Your task to perform on an android device: Add "macbook air" to the cart on newegg.com, then select checkout. Image 0: 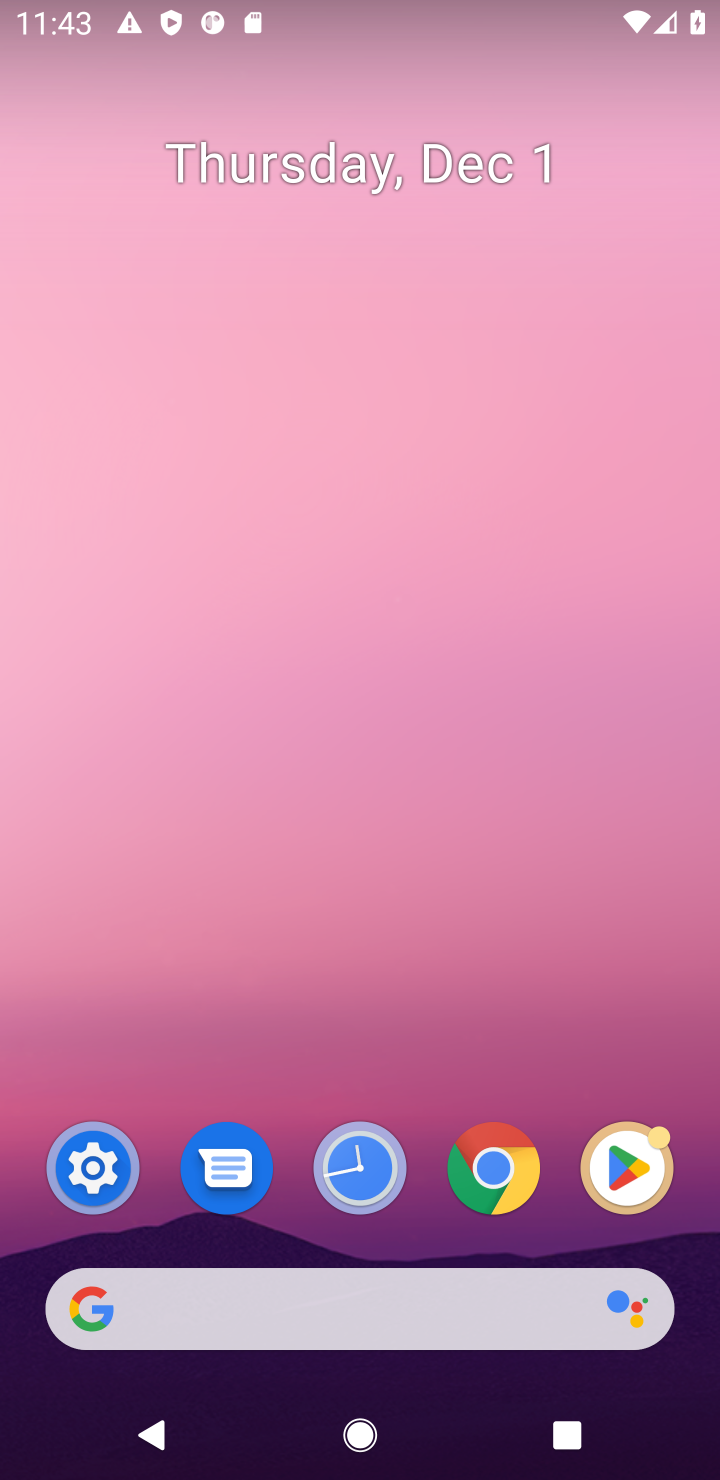
Step 0: click (489, 1174)
Your task to perform on an android device: Add "macbook air" to the cart on newegg.com, then select checkout. Image 1: 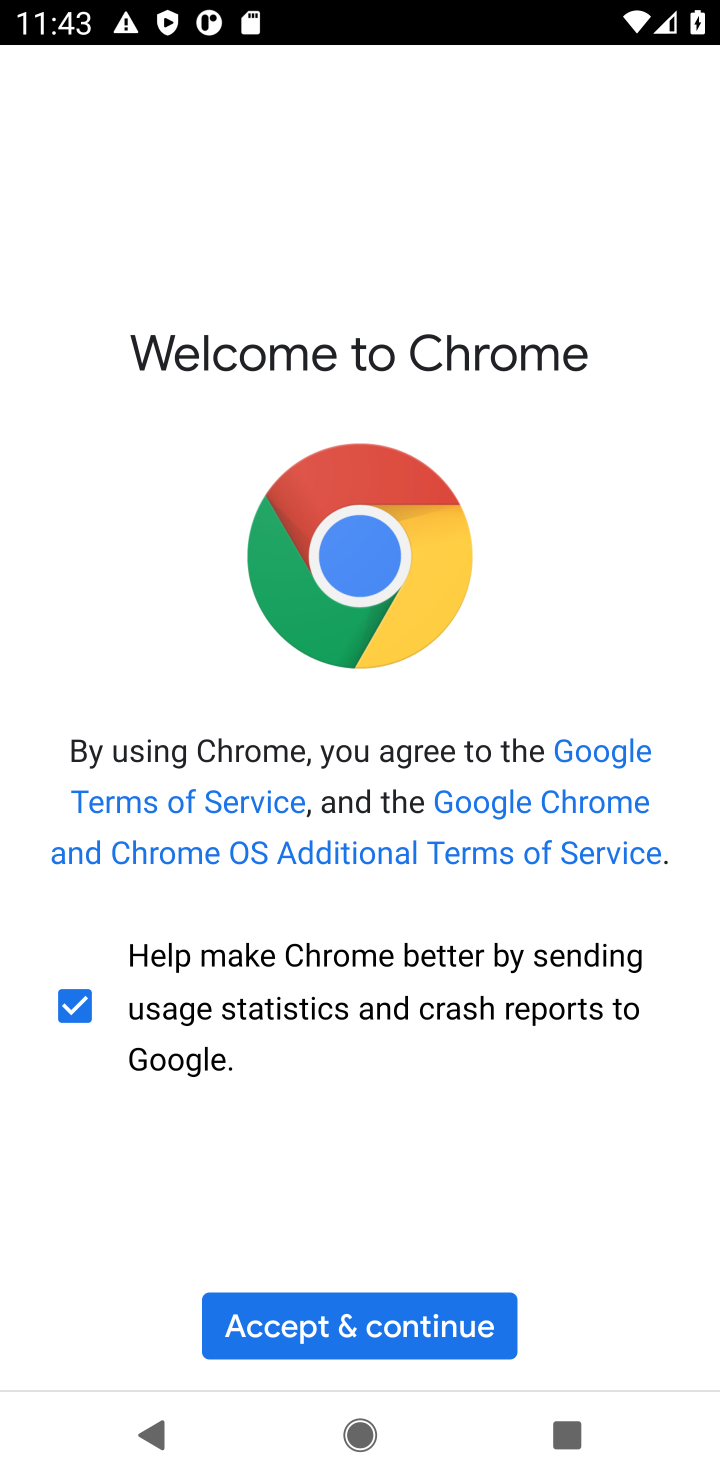
Step 1: click (345, 1315)
Your task to perform on an android device: Add "macbook air" to the cart on newegg.com, then select checkout. Image 2: 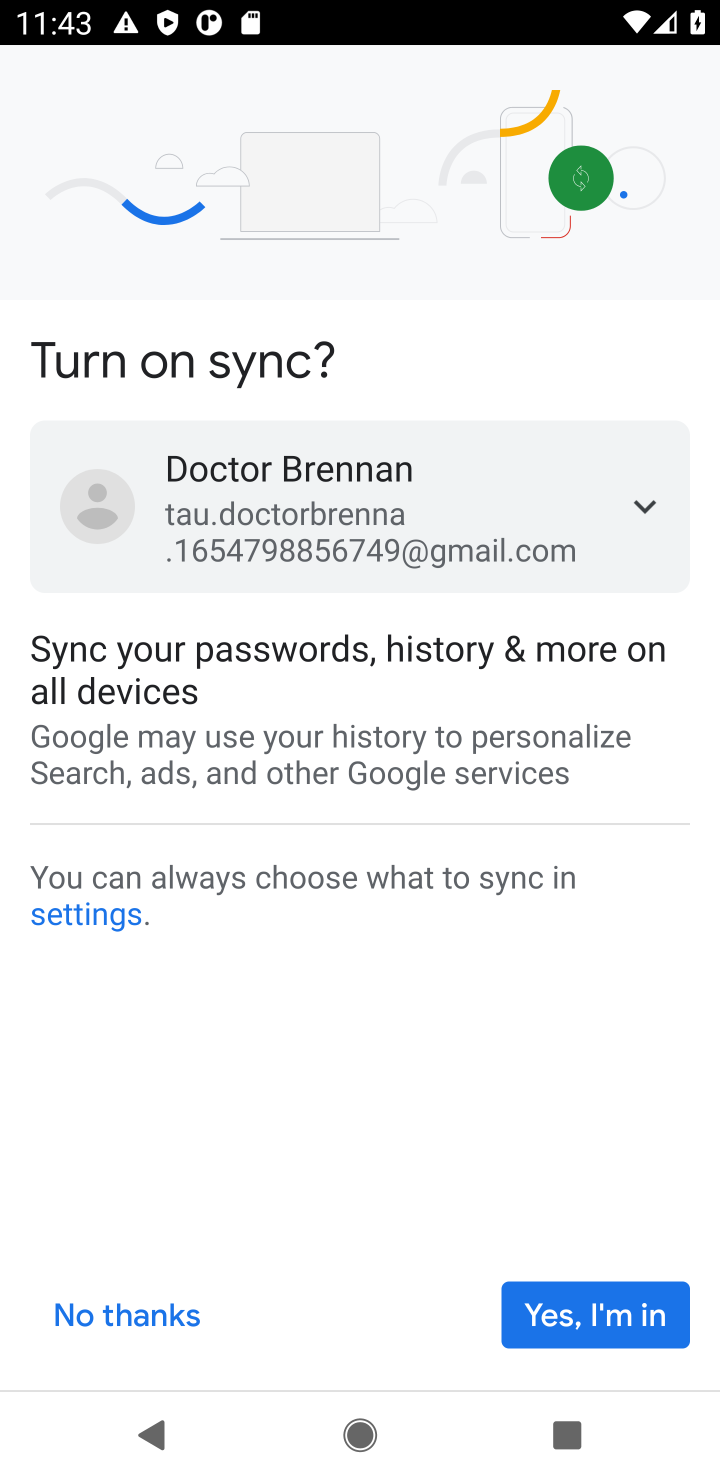
Step 2: click (598, 1324)
Your task to perform on an android device: Add "macbook air" to the cart on newegg.com, then select checkout. Image 3: 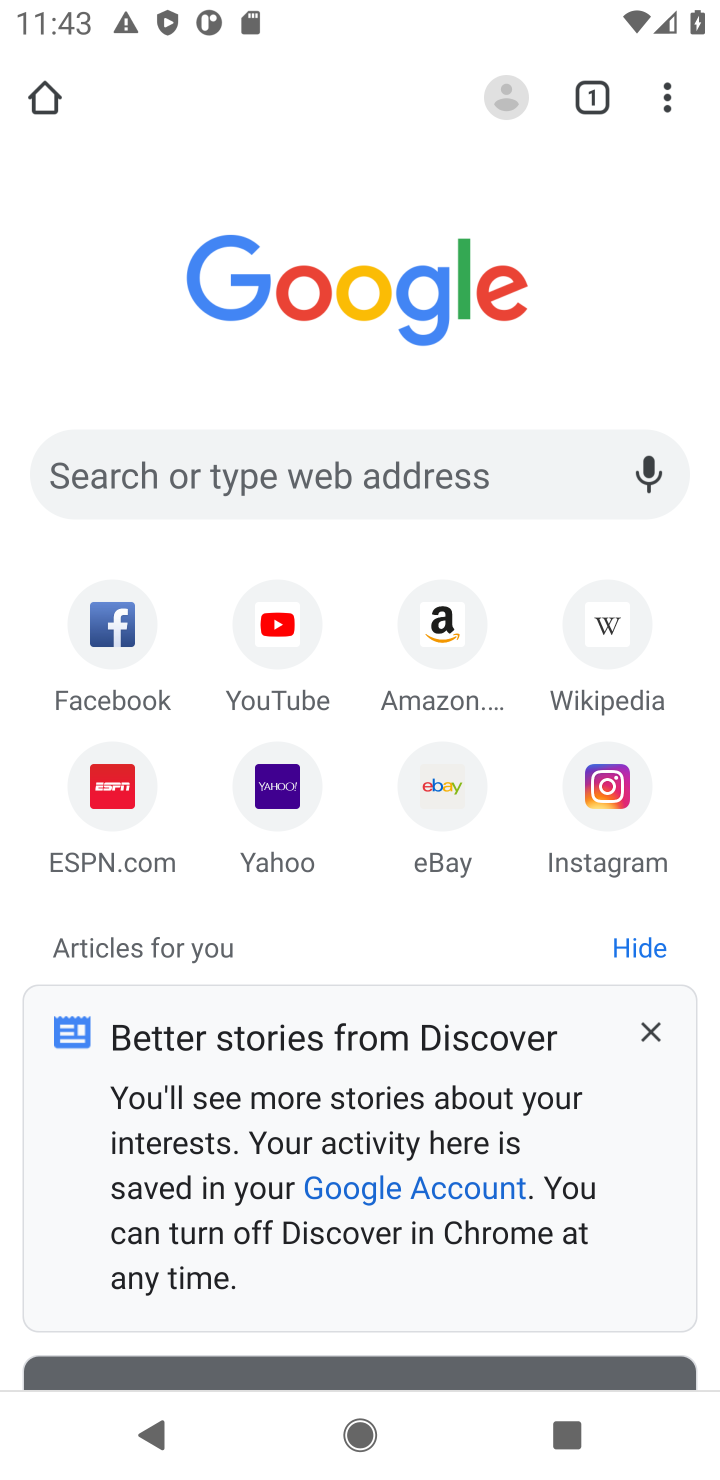
Step 3: click (310, 466)
Your task to perform on an android device: Add "macbook air" to the cart on newegg.com, then select checkout. Image 4: 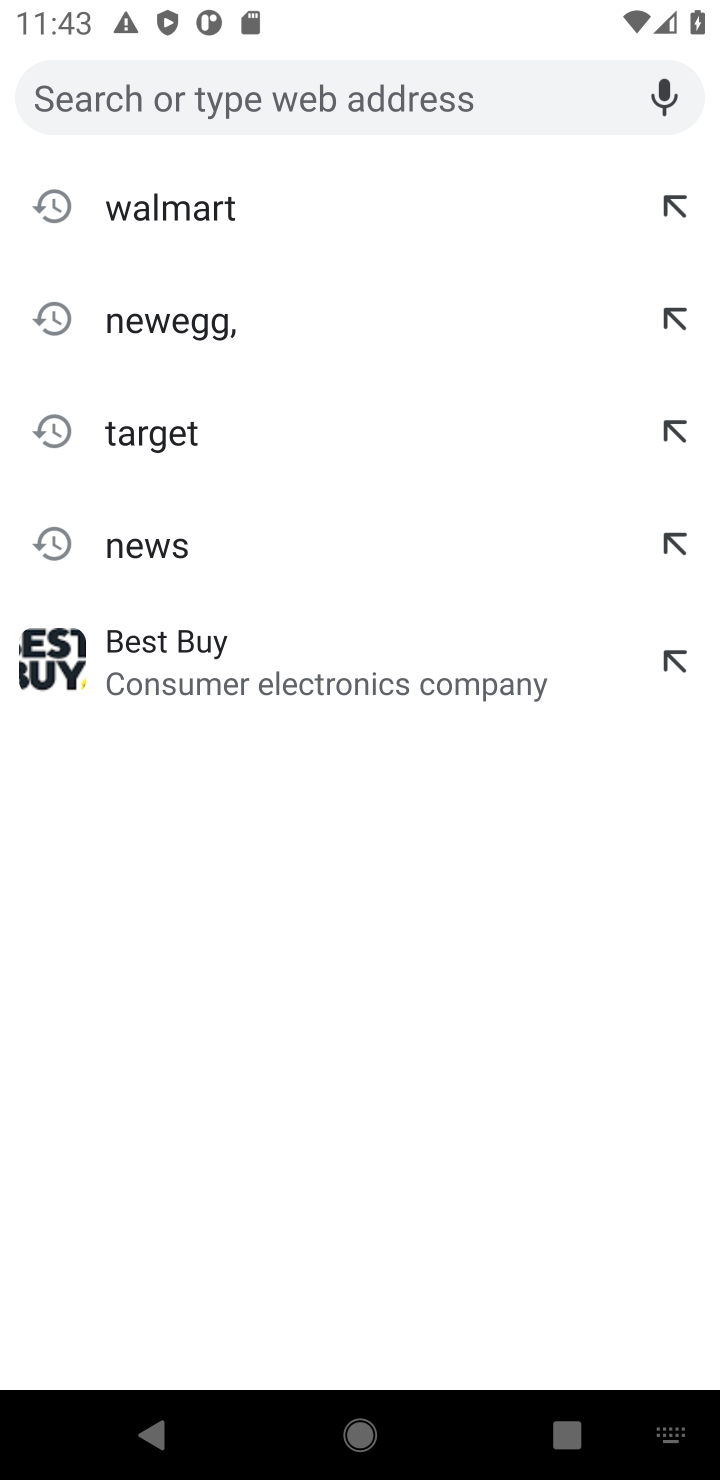
Step 4: type "newegg.com"
Your task to perform on an android device: Add "macbook air" to the cart on newegg.com, then select checkout. Image 5: 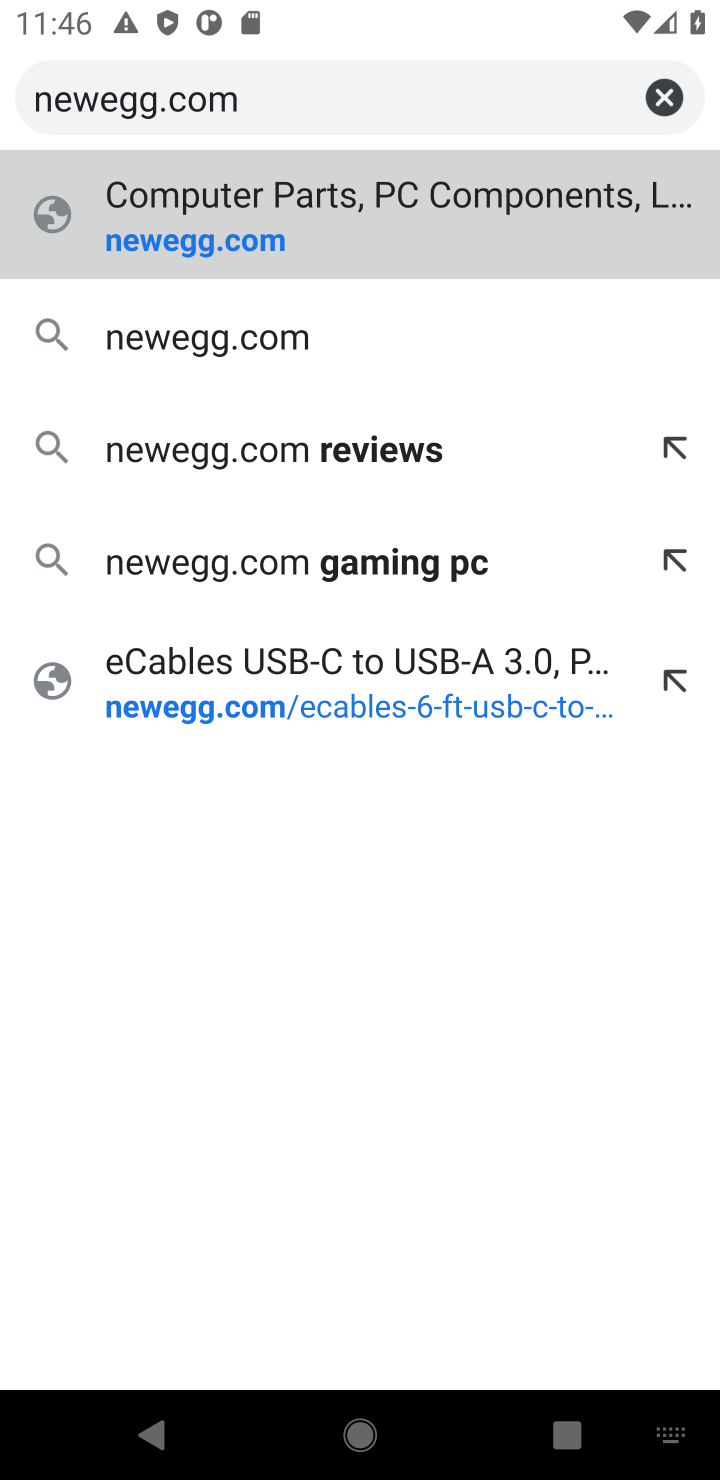
Step 5: click (361, 199)
Your task to perform on an android device: Add "macbook air" to the cart on newegg.com, then select checkout. Image 6: 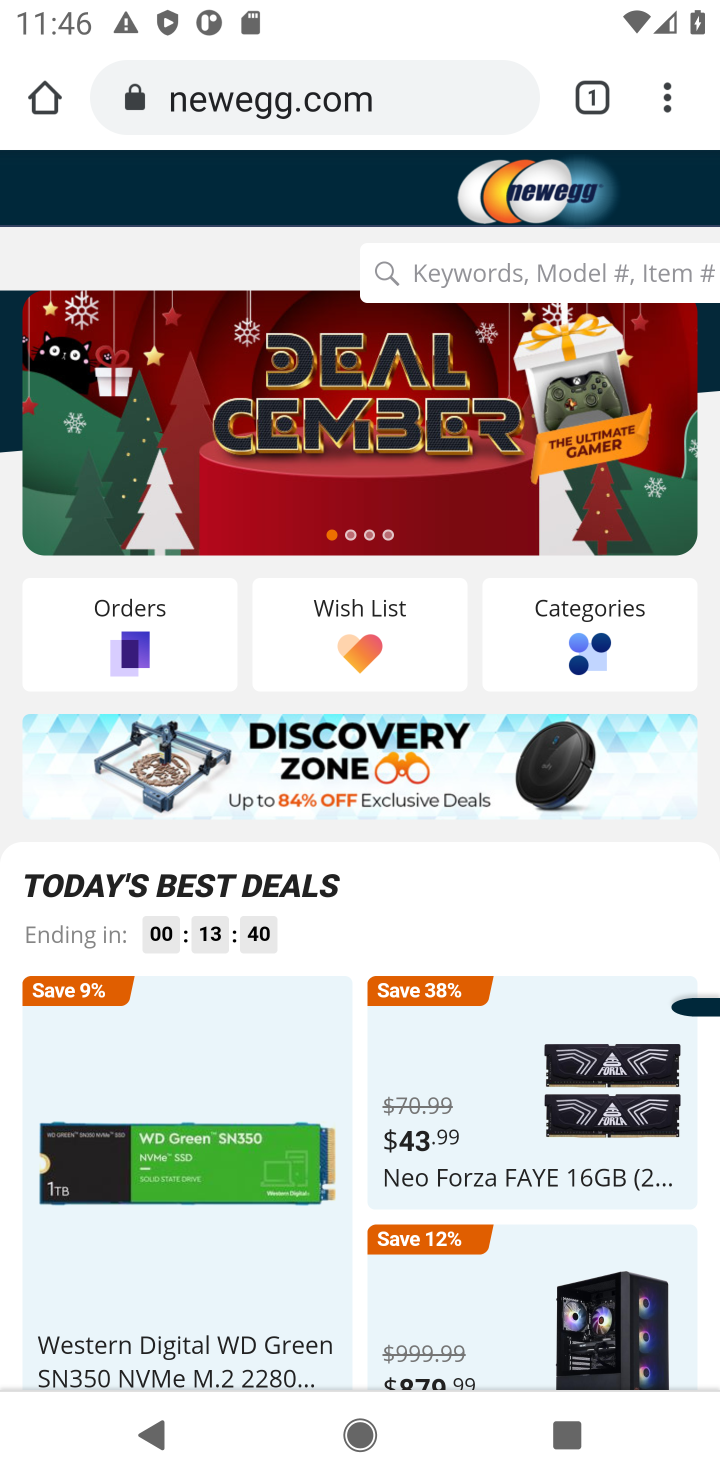
Step 6: click (458, 269)
Your task to perform on an android device: Add "macbook air" to the cart on newegg.com, then select checkout. Image 7: 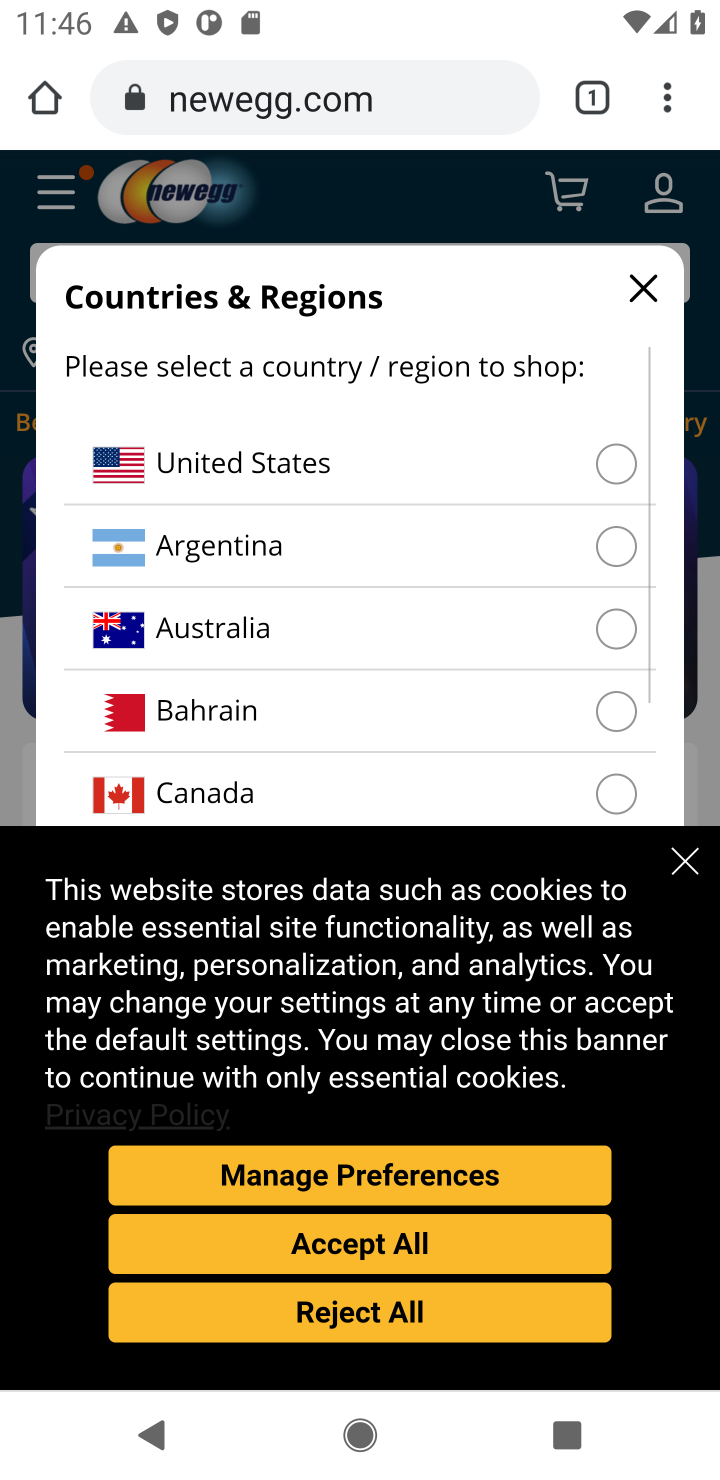
Step 7: click (341, 460)
Your task to perform on an android device: Add "macbook air" to the cart on newegg.com, then select checkout. Image 8: 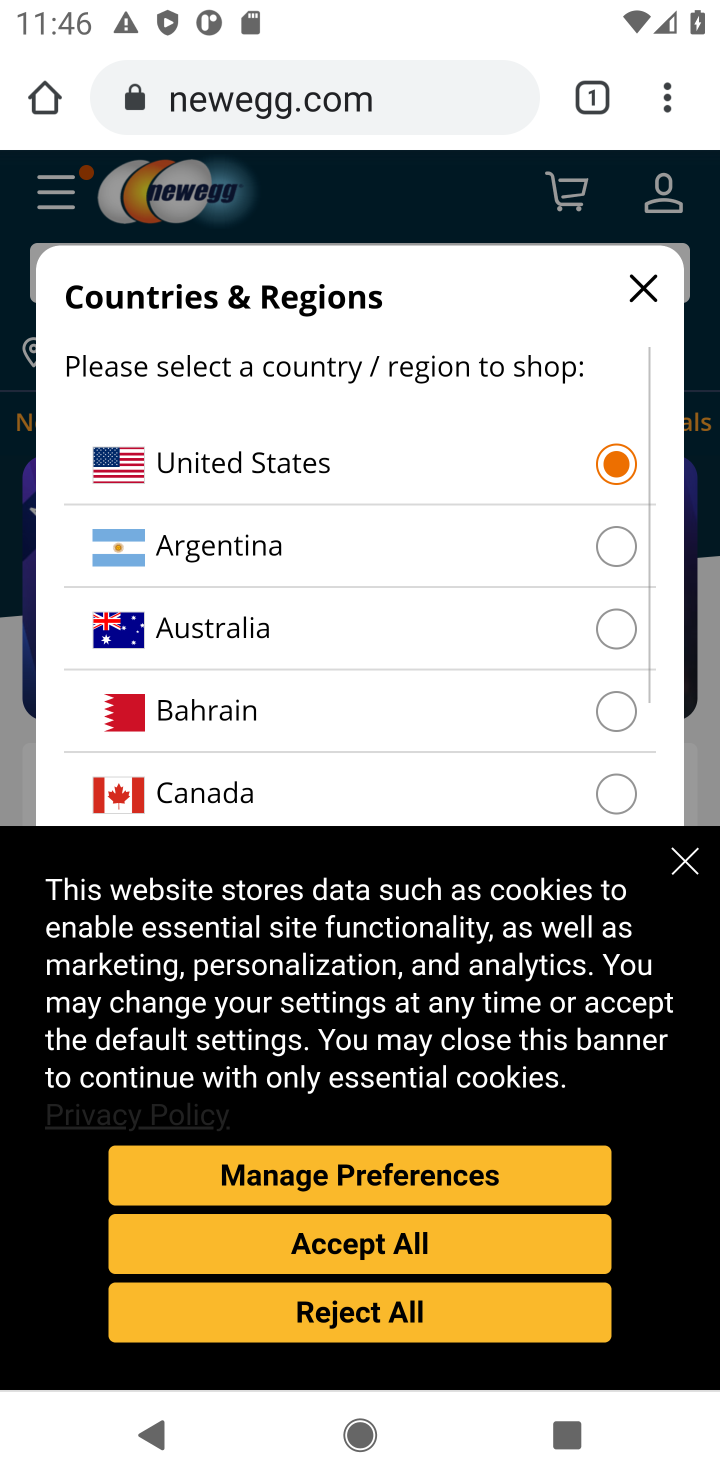
Step 8: click (688, 857)
Your task to perform on an android device: Add "macbook air" to the cart on newegg.com, then select checkout. Image 9: 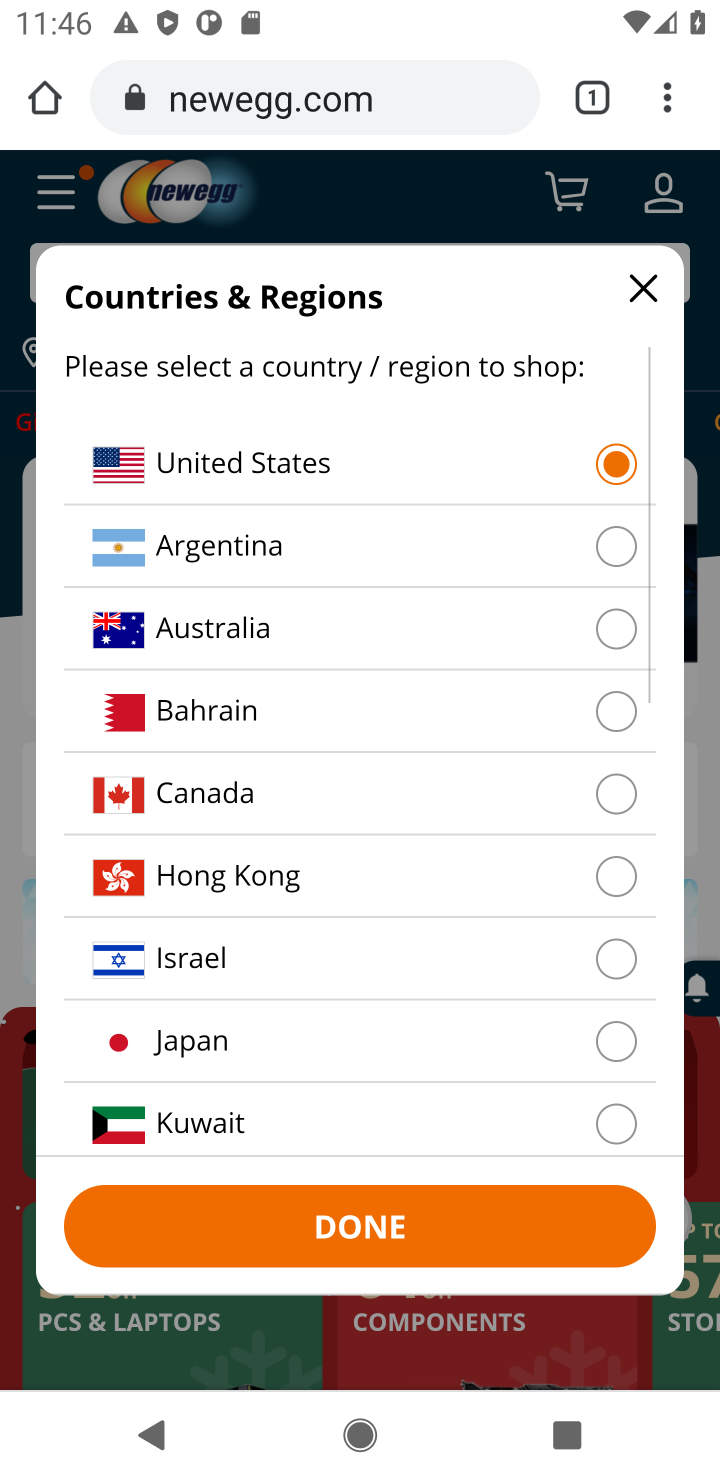
Step 9: click (639, 290)
Your task to perform on an android device: Add "macbook air" to the cart on newegg.com, then select checkout. Image 10: 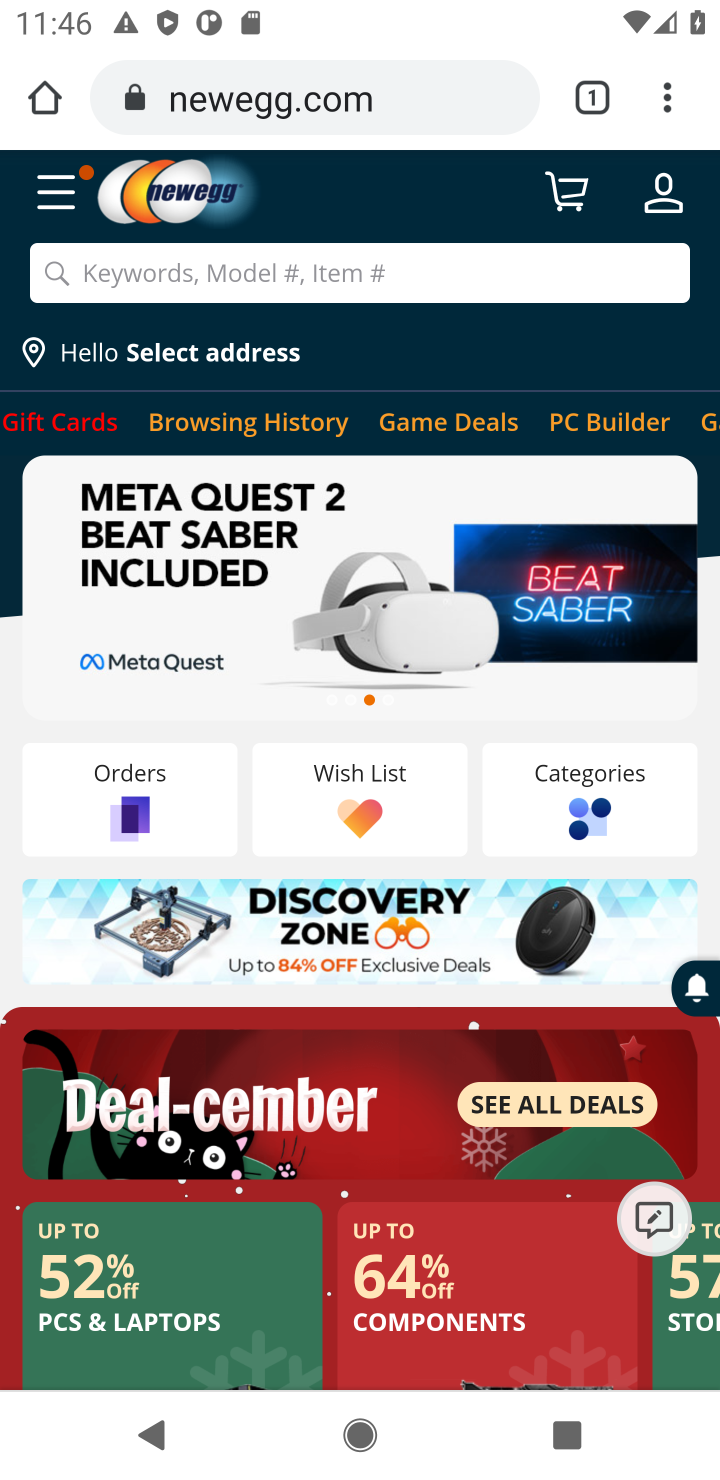
Step 10: click (302, 272)
Your task to perform on an android device: Add "macbook air" to the cart on newegg.com, then select checkout. Image 11: 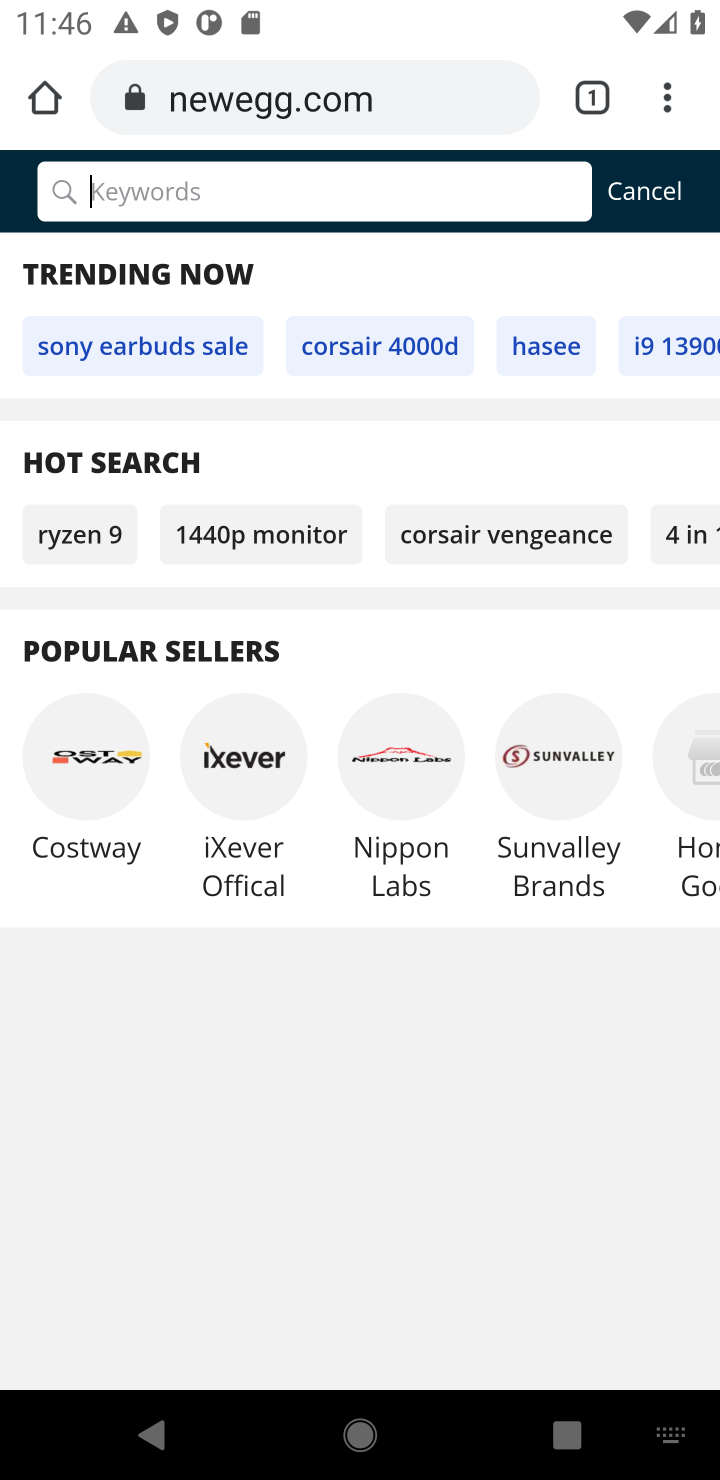
Step 11: type "macbook air"
Your task to perform on an android device: Add "macbook air" to the cart on newegg.com, then select checkout. Image 12: 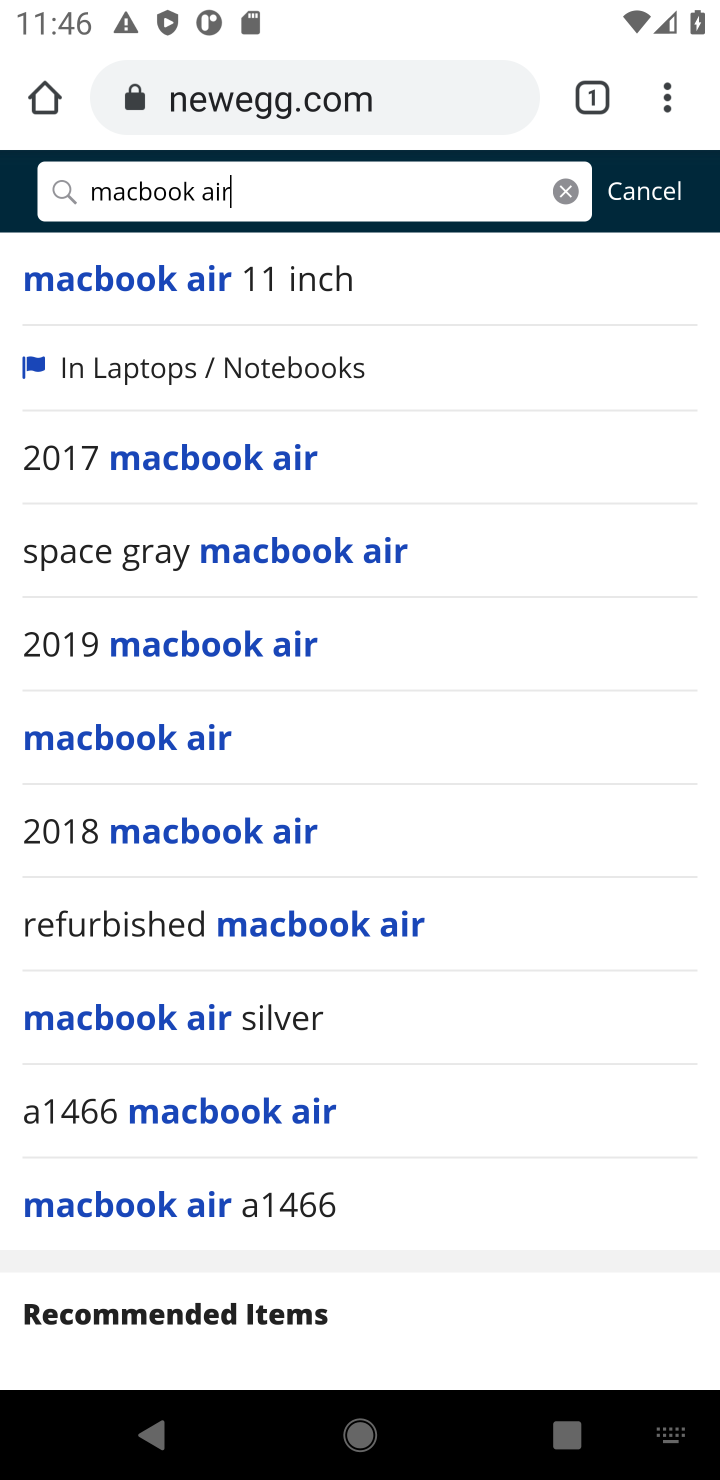
Step 12: click (136, 464)
Your task to perform on an android device: Add "macbook air" to the cart on newegg.com, then select checkout. Image 13: 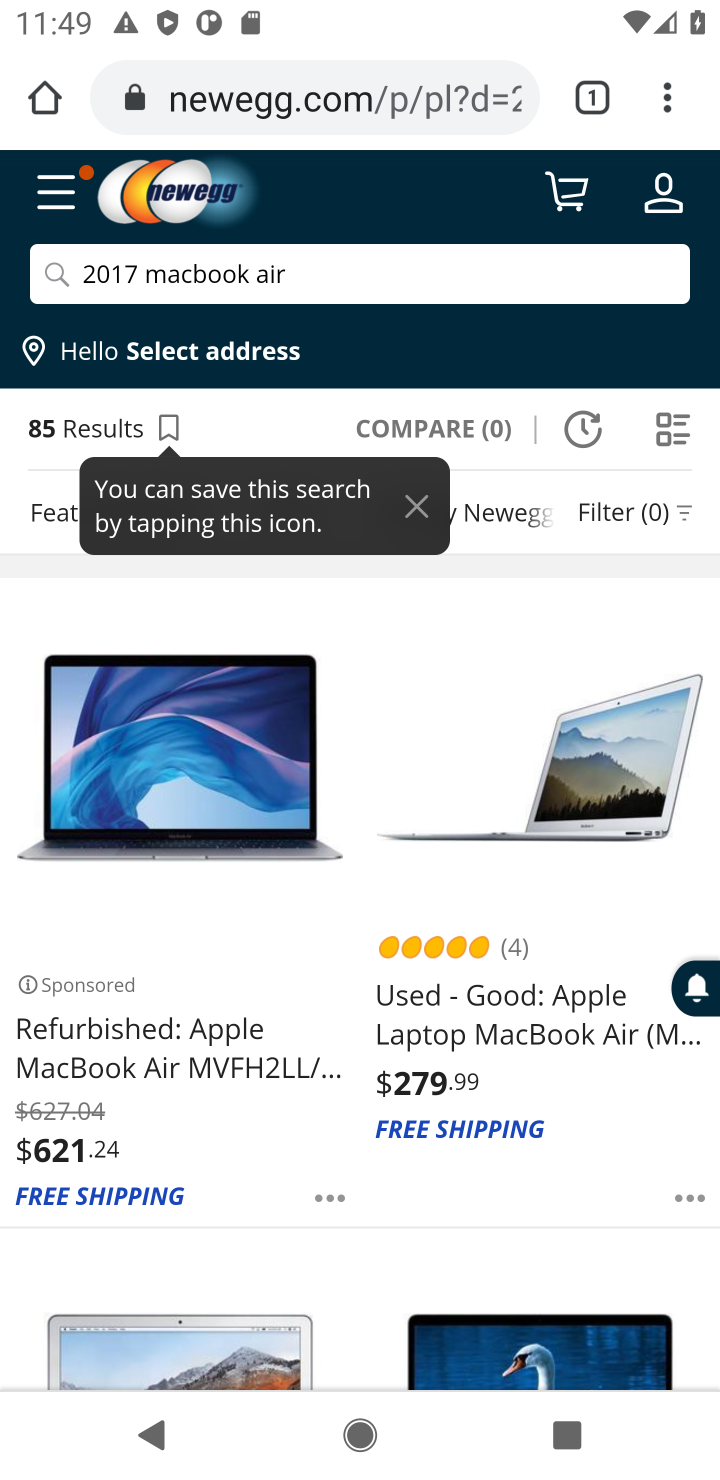
Step 13: click (163, 851)
Your task to perform on an android device: Add "macbook air" to the cart on newegg.com, then select checkout. Image 14: 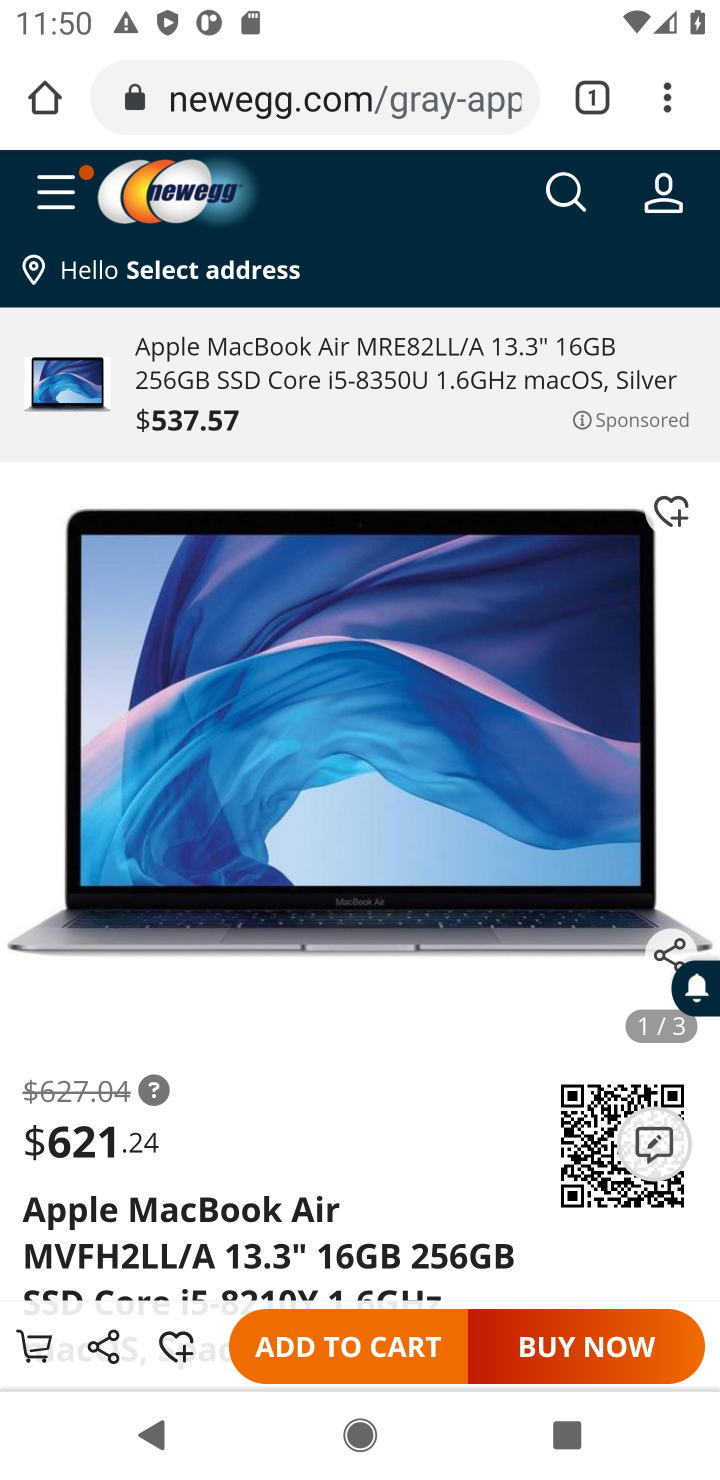
Step 14: click (311, 1336)
Your task to perform on an android device: Add "macbook air" to the cart on newegg.com, then select checkout. Image 15: 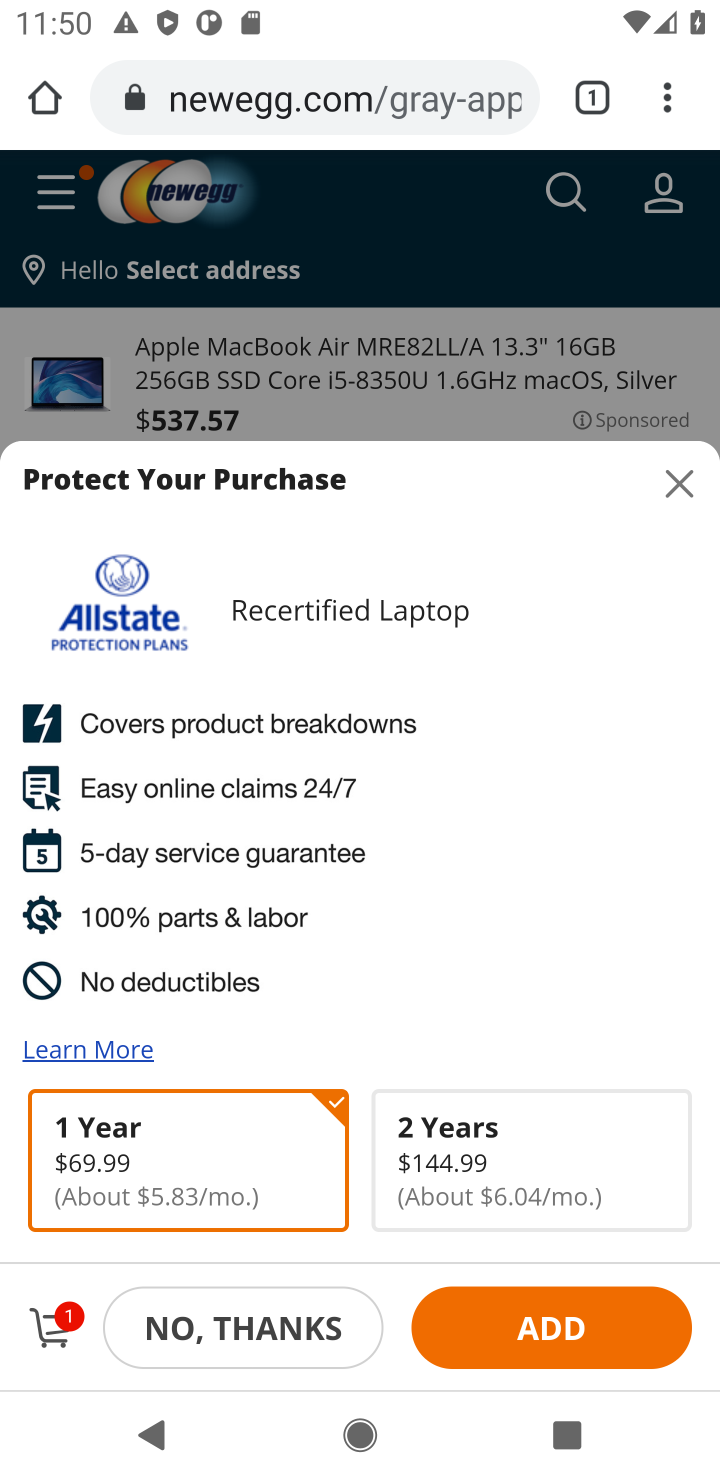
Step 15: click (666, 488)
Your task to perform on an android device: Add "macbook air" to the cart on newegg.com, then select checkout. Image 16: 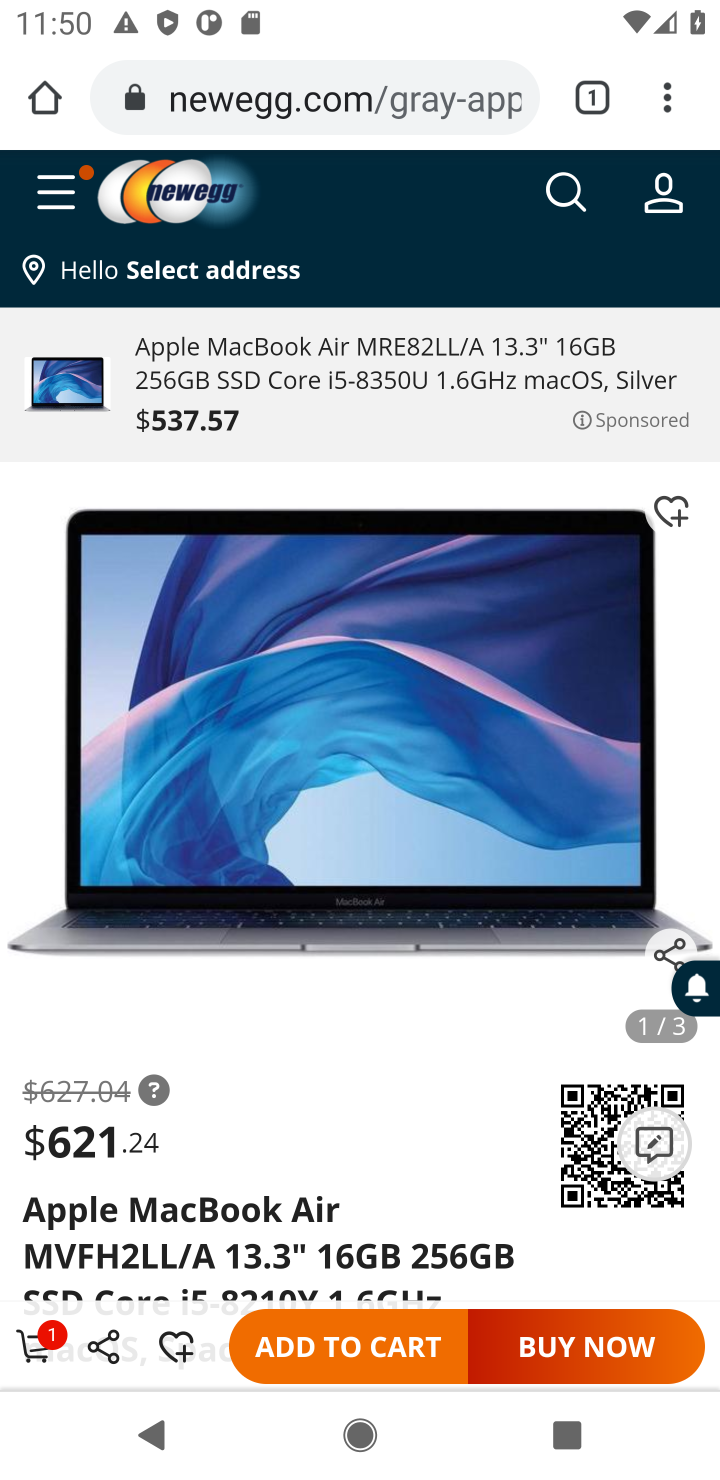
Step 16: click (359, 1345)
Your task to perform on an android device: Add "macbook air" to the cart on newegg.com, then select checkout. Image 17: 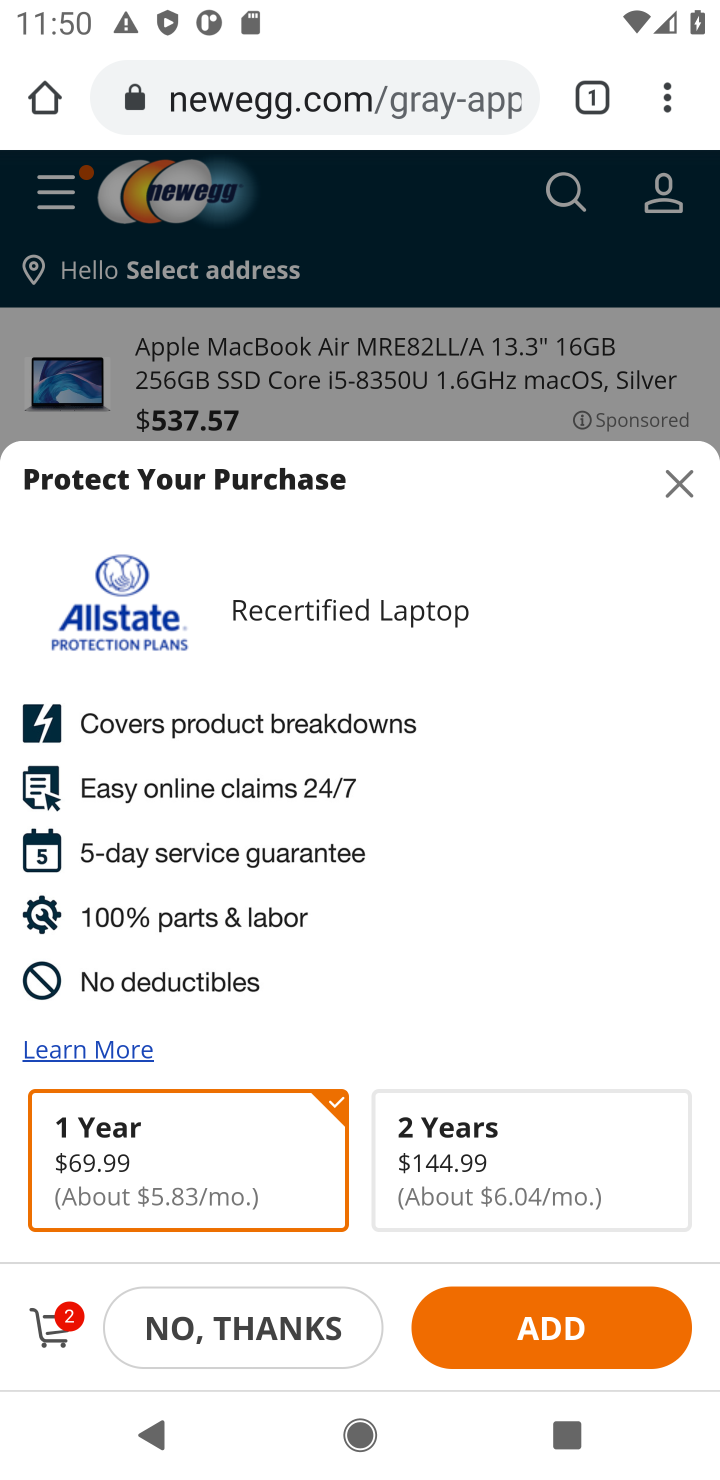
Step 17: click (243, 1338)
Your task to perform on an android device: Add "macbook air" to the cart on newegg.com, then select checkout. Image 18: 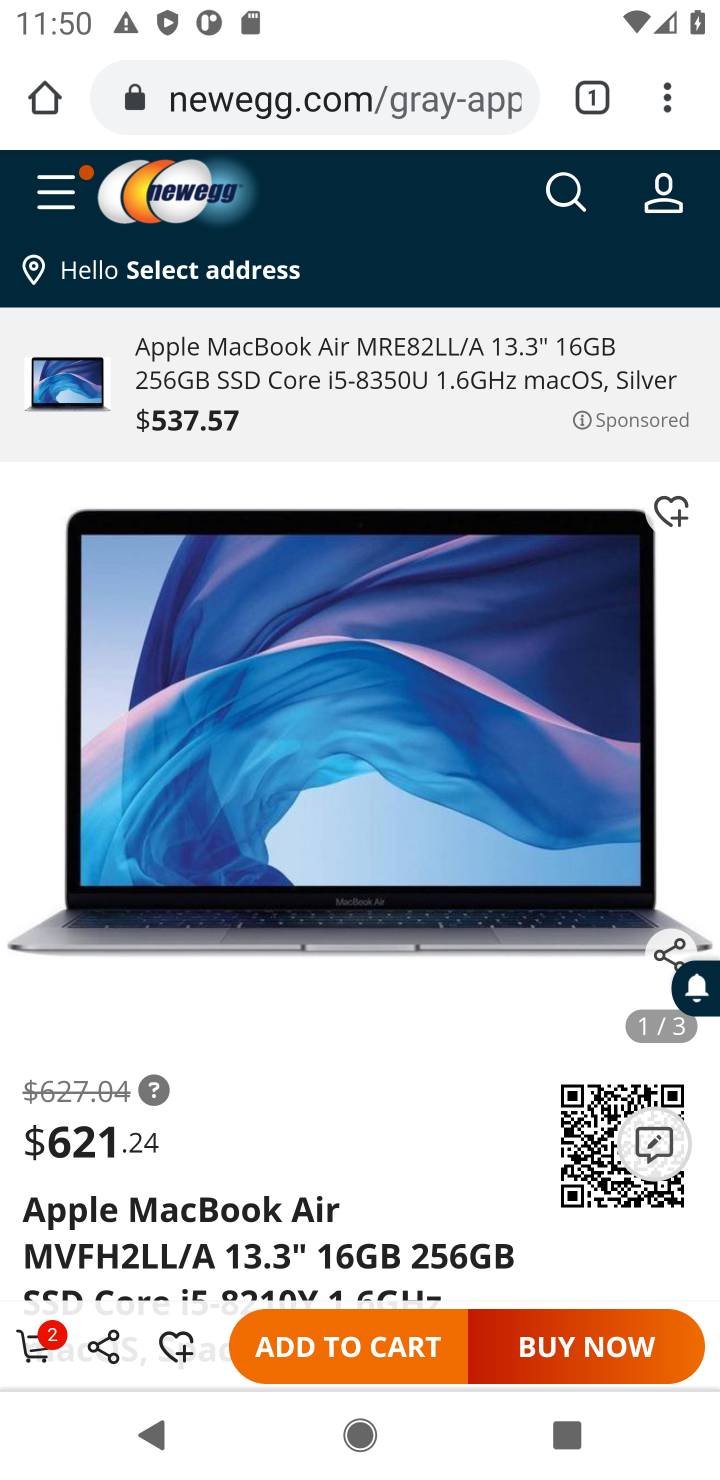
Step 18: task complete